Your task to perform on an android device: turn off notifications settings in the gmail app Image 0: 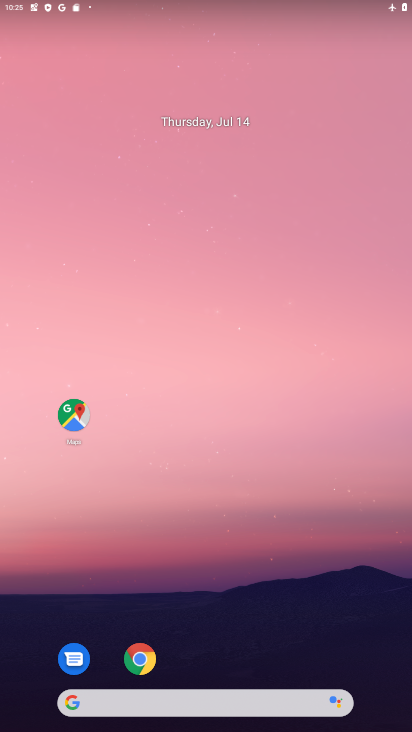
Step 0: drag from (291, 660) to (276, 331)
Your task to perform on an android device: turn off notifications settings in the gmail app Image 1: 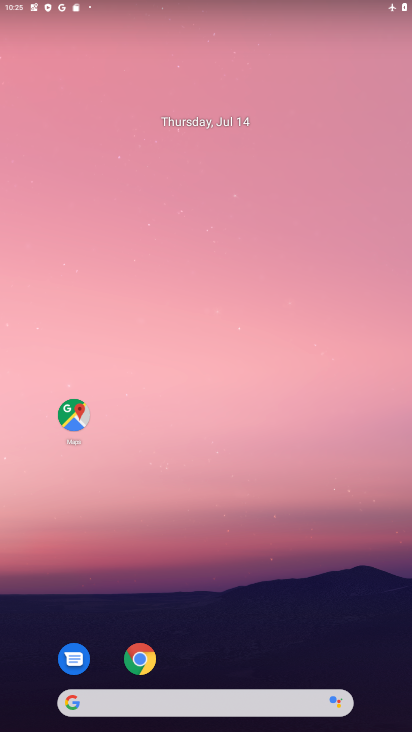
Step 1: drag from (260, 664) to (262, 173)
Your task to perform on an android device: turn off notifications settings in the gmail app Image 2: 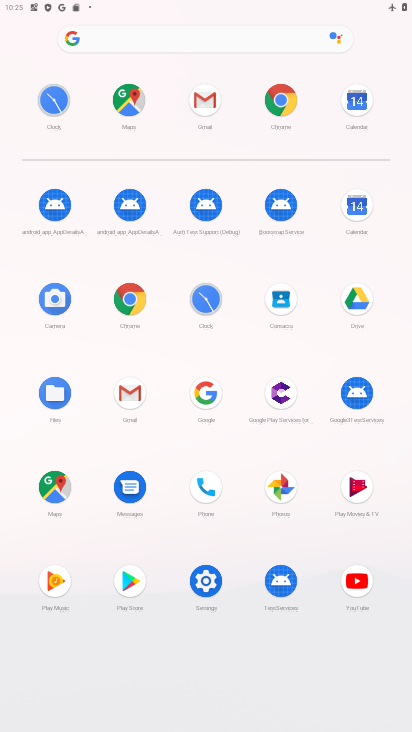
Step 2: click (205, 98)
Your task to perform on an android device: turn off notifications settings in the gmail app Image 3: 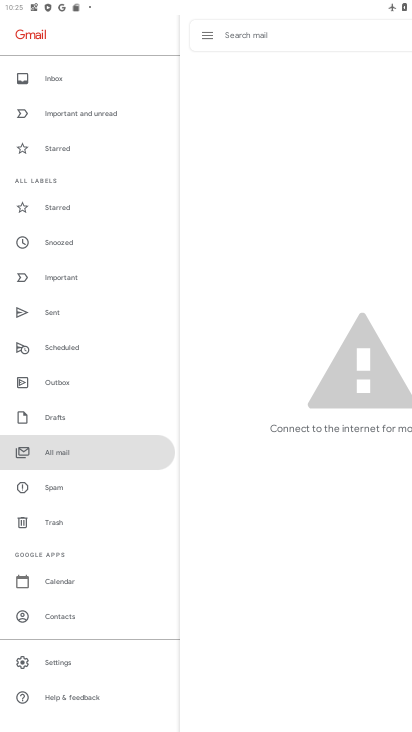
Step 3: click (70, 663)
Your task to perform on an android device: turn off notifications settings in the gmail app Image 4: 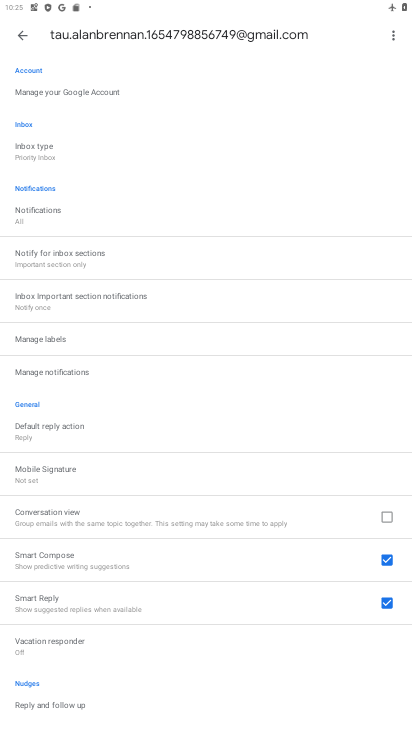
Step 4: click (66, 378)
Your task to perform on an android device: turn off notifications settings in the gmail app Image 5: 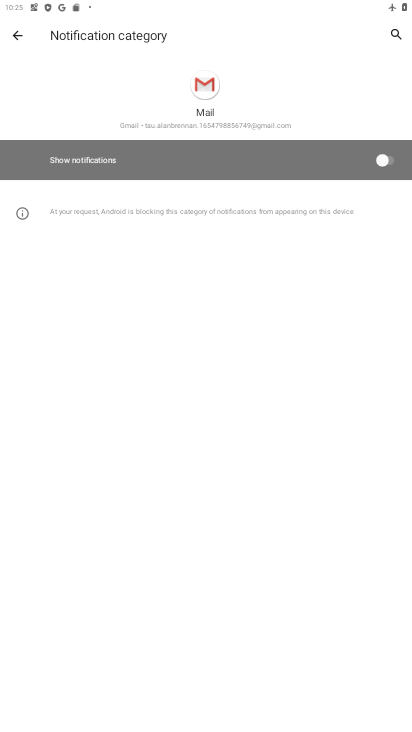
Step 5: task complete